Your task to perform on an android device: Open calendar and show me the third week of next month Image 0: 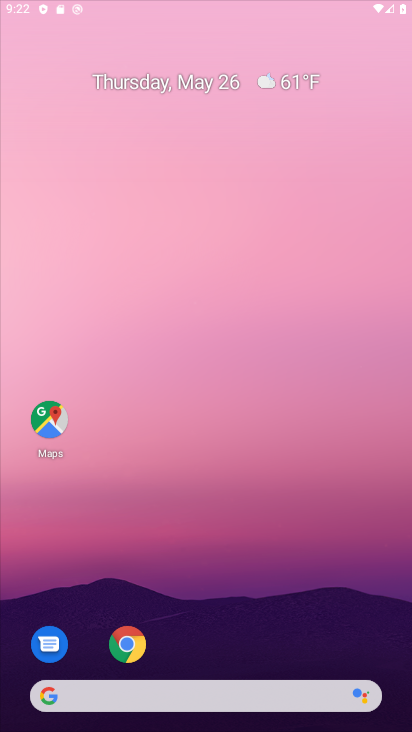
Step 0: click (338, 307)
Your task to perform on an android device: Open calendar and show me the third week of next month Image 1: 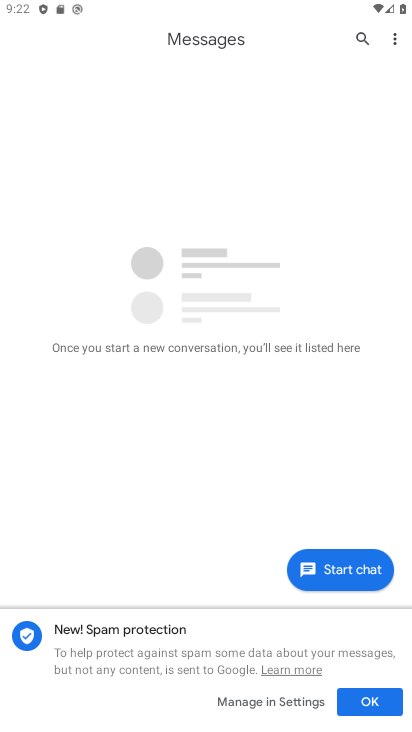
Step 1: press back button
Your task to perform on an android device: Open calendar and show me the third week of next month Image 2: 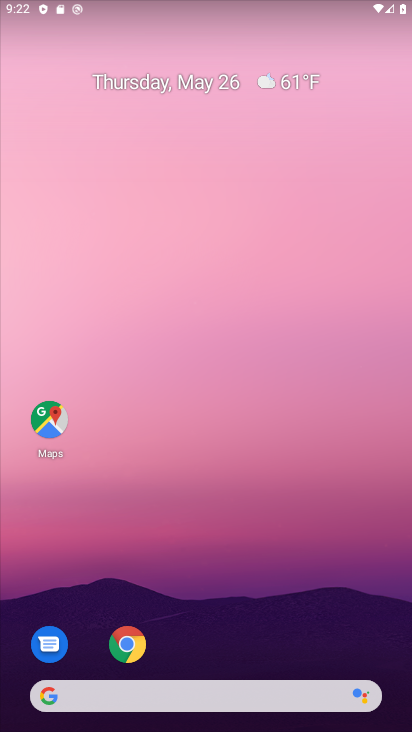
Step 2: drag from (286, 652) to (107, 166)
Your task to perform on an android device: Open calendar and show me the third week of next month Image 3: 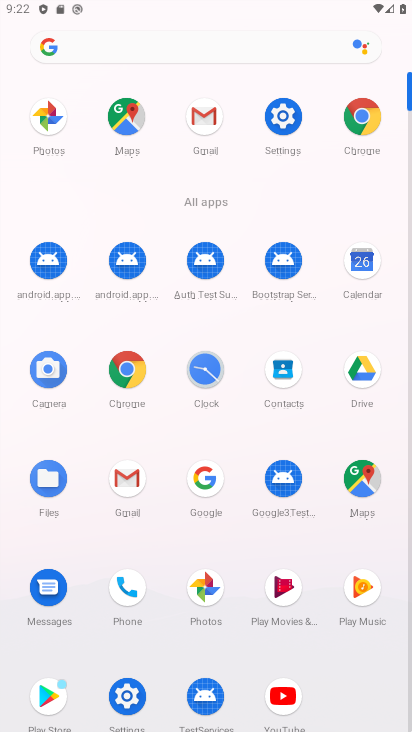
Step 3: click (350, 262)
Your task to perform on an android device: Open calendar and show me the third week of next month Image 4: 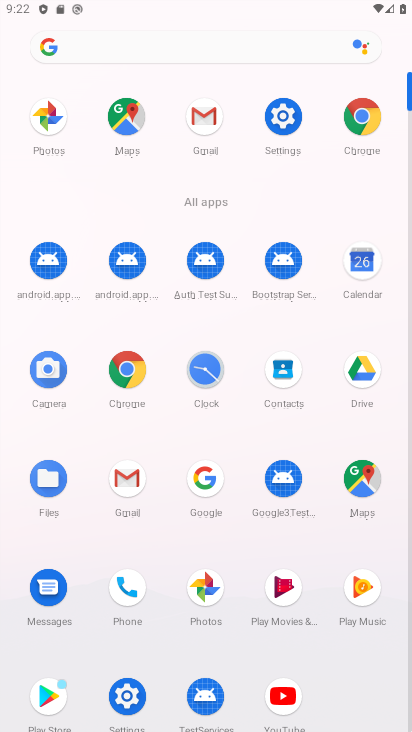
Step 4: click (350, 262)
Your task to perform on an android device: Open calendar and show me the third week of next month Image 5: 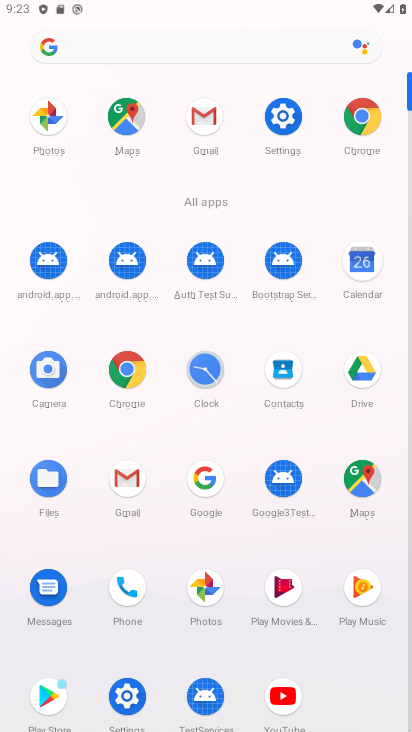
Step 5: click (350, 262)
Your task to perform on an android device: Open calendar and show me the third week of next month Image 6: 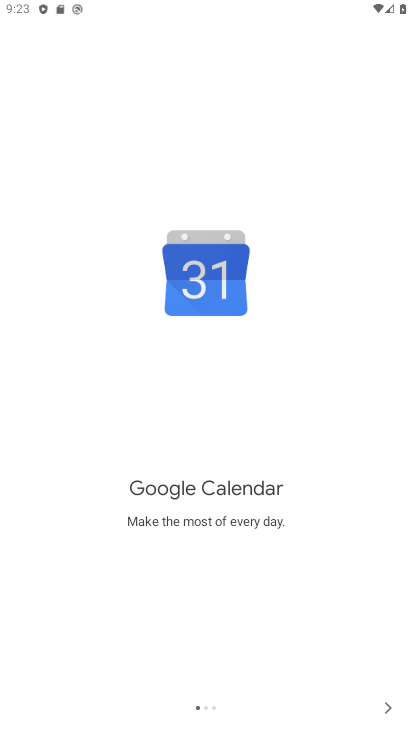
Step 6: click (390, 711)
Your task to perform on an android device: Open calendar and show me the third week of next month Image 7: 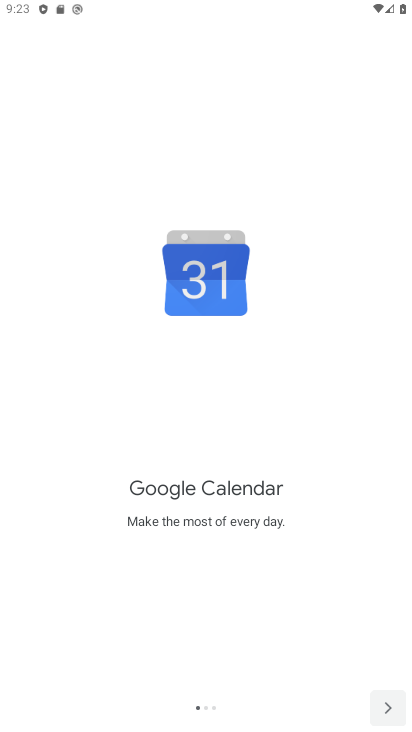
Step 7: click (390, 711)
Your task to perform on an android device: Open calendar and show me the third week of next month Image 8: 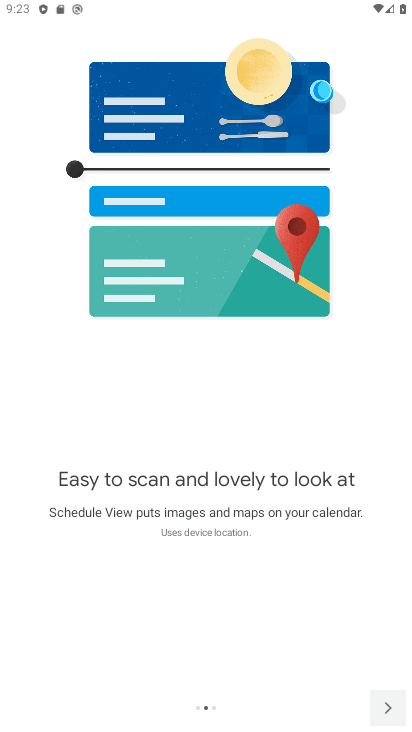
Step 8: click (390, 711)
Your task to perform on an android device: Open calendar and show me the third week of next month Image 9: 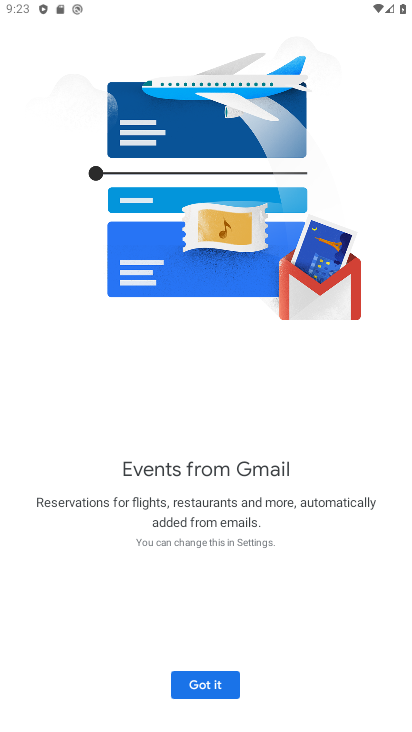
Step 9: click (218, 690)
Your task to perform on an android device: Open calendar and show me the third week of next month Image 10: 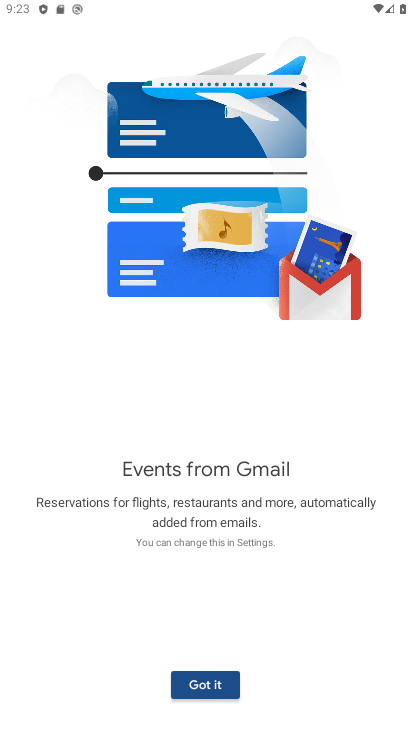
Step 10: click (218, 690)
Your task to perform on an android device: Open calendar and show me the third week of next month Image 11: 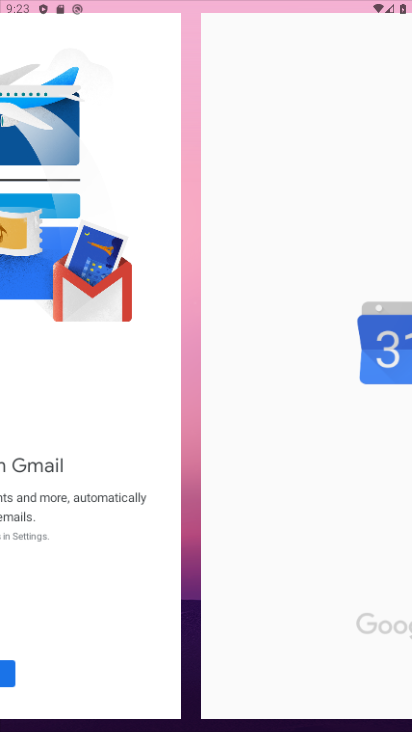
Step 11: click (218, 690)
Your task to perform on an android device: Open calendar and show me the third week of next month Image 12: 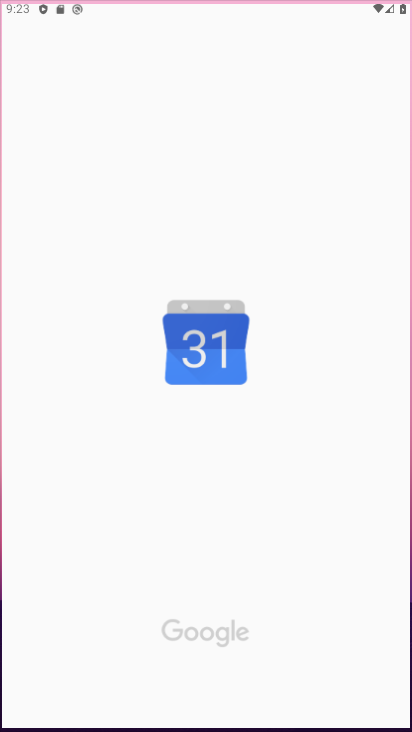
Step 12: click (218, 690)
Your task to perform on an android device: Open calendar and show me the third week of next month Image 13: 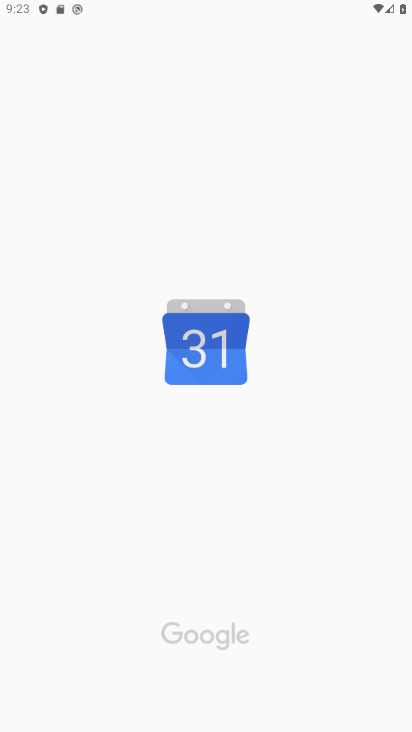
Step 13: click (216, 687)
Your task to perform on an android device: Open calendar and show me the third week of next month Image 14: 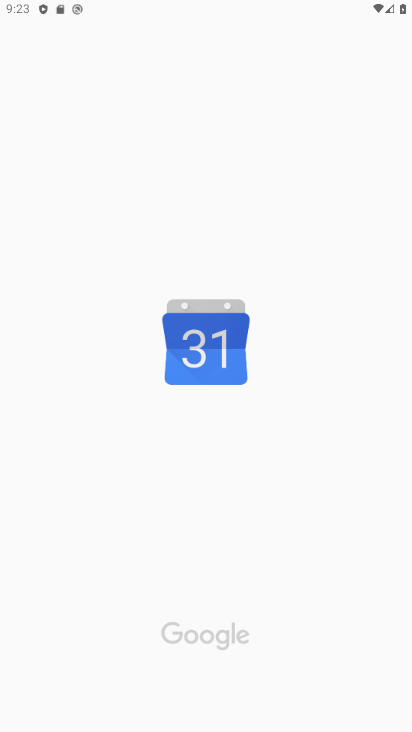
Step 14: click (216, 684)
Your task to perform on an android device: Open calendar and show me the third week of next month Image 15: 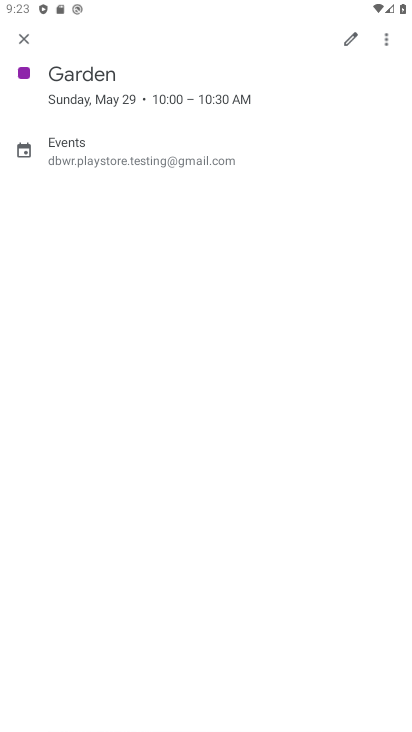
Step 15: click (92, 41)
Your task to perform on an android device: Open calendar and show me the third week of next month Image 16: 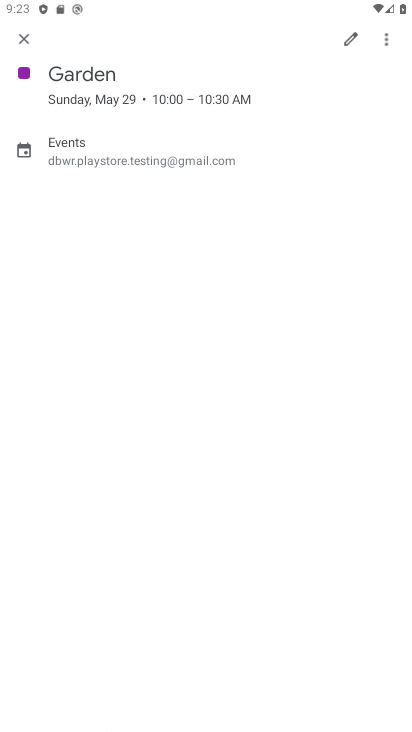
Step 16: click (27, 43)
Your task to perform on an android device: Open calendar and show me the third week of next month Image 17: 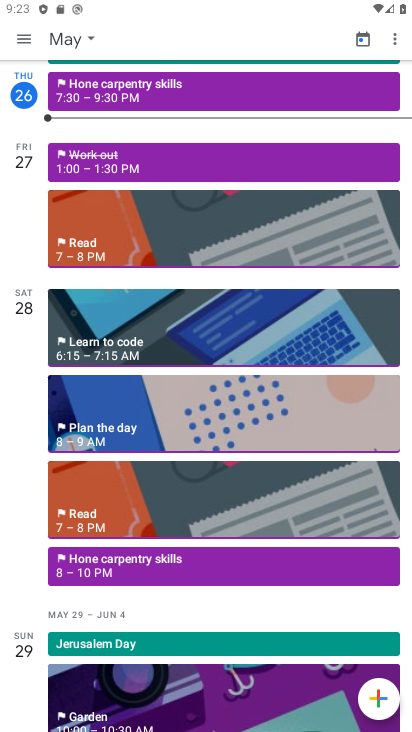
Step 17: click (89, 45)
Your task to perform on an android device: Open calendar and show me the third week of next month Image 18: 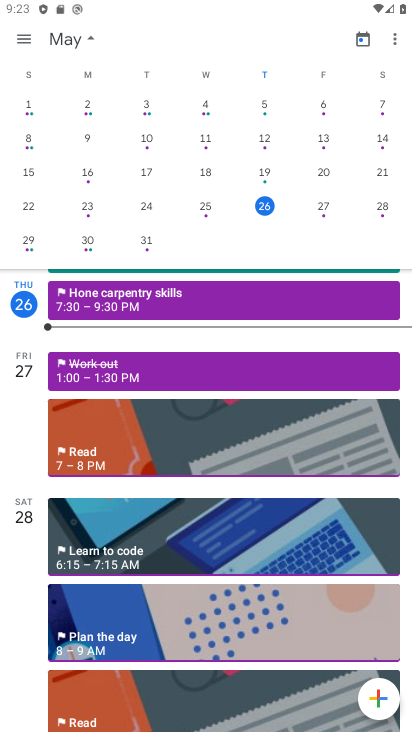
Step 18: drag from (326, 166) to (45, 240)
Your task to perform on an android device: Open calendar and show me the third week of next month Image 19: 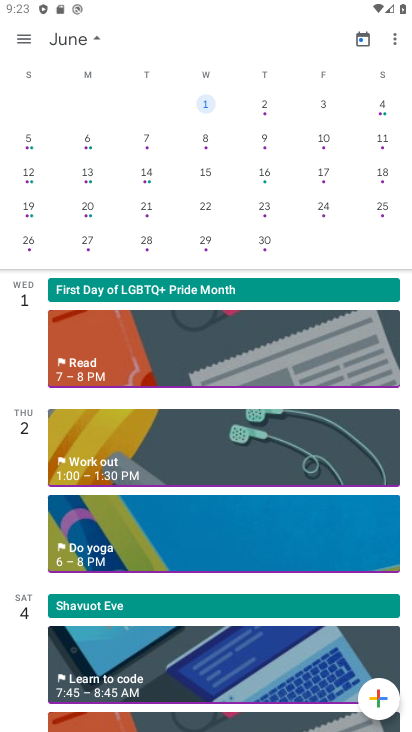
Step 19: click (213, 167)
Your task to perform on an android device: Open calendar and show me the third week of next month Image 20: 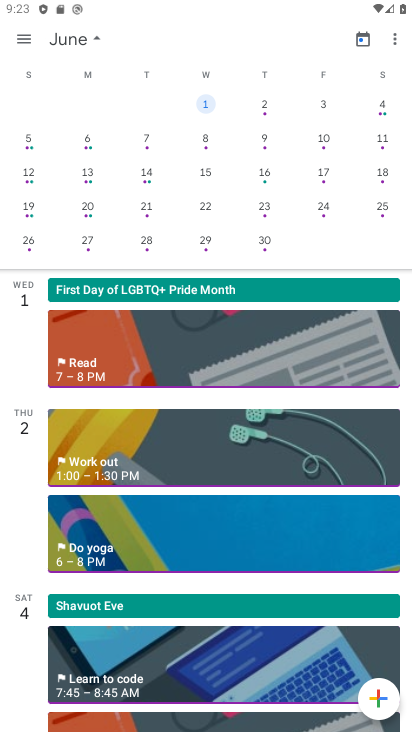
Step 20: click (213, 167)
Your task to perform on an android device: Open calendar and show me the third week of next month Image 21: 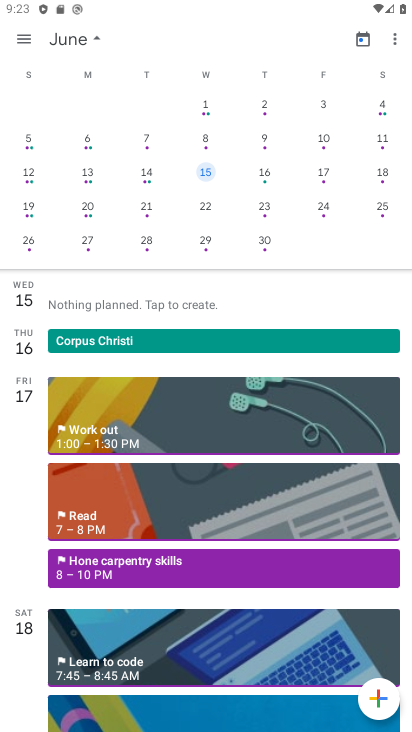
Step 21: click (213, 168)
Your task to perform on an android device: Open calendar and show me the third week of next month Image 22: 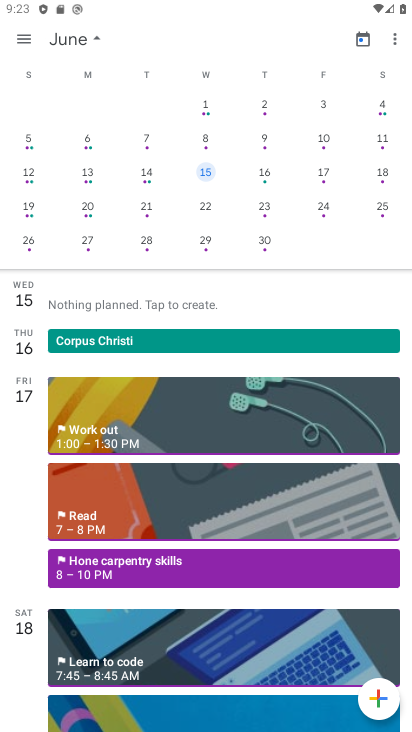
Step 22: click (213, 168)
Your task to perform on an android device: Open calendar and show me the third week of next month Image 23: 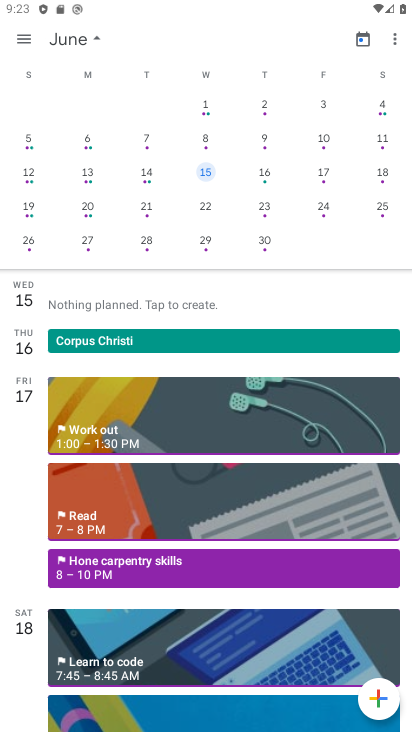
Step 23: click (213, 168)
Your task to perform on an android device: Open calendar and show me the third week of next month Image 24: 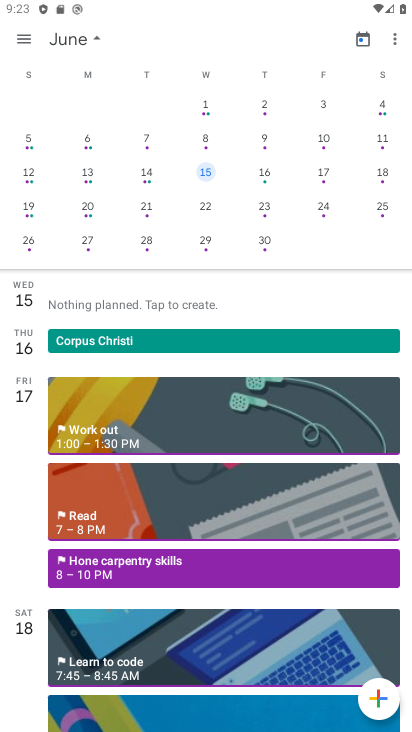
Step 24: task complete